Your task to perform on an android device: snooze an email in the gmail app Image 0: 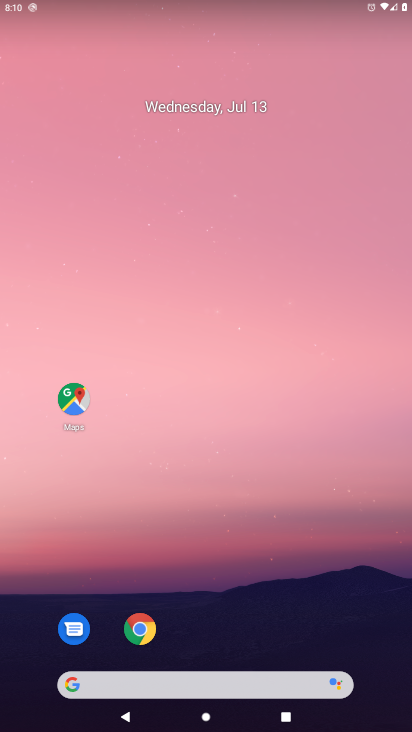
Step 0: drag from (75, 670) to (148, 342)
Your task to perform on an android device: snooze an email in the gmail app Image 1: 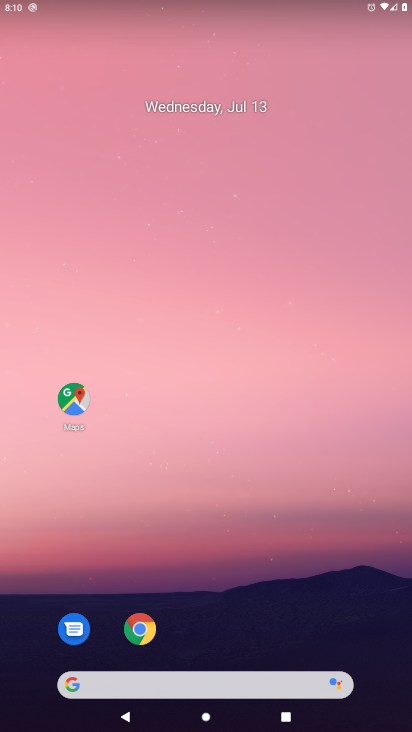
Step 1: drag from (35, 691) to (271, 15)
Your task to perform on an android device: snooze an email in the gmail app Image 2: 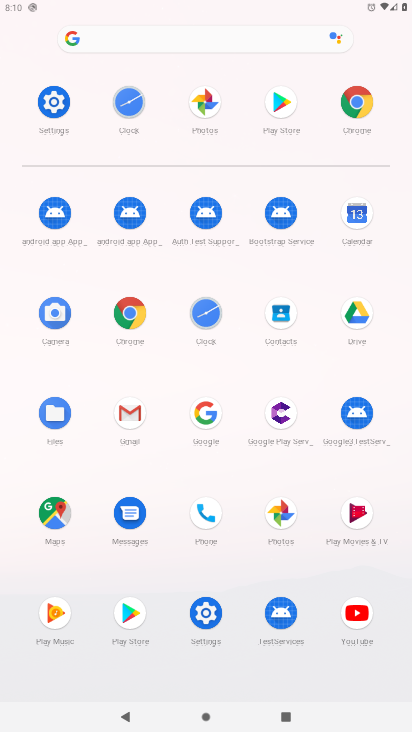
Step 2: click (130, 413)
Your task to perform on an android device: snooze an email in the gmail app Image 3: 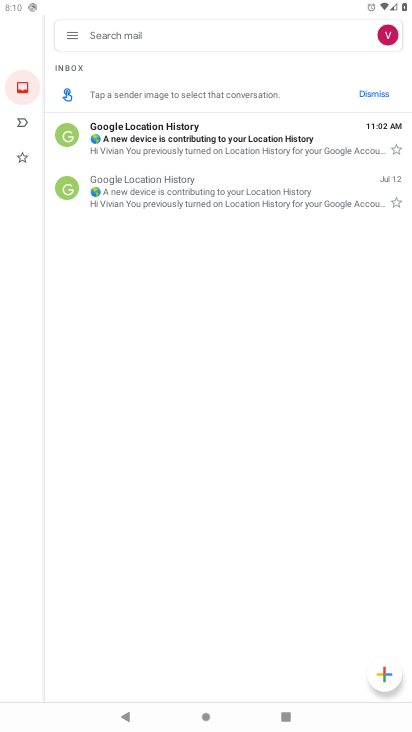
Step 3: click (69, 38)
Your task to perform on an android device: snooze an email in the gmail app Image 4: 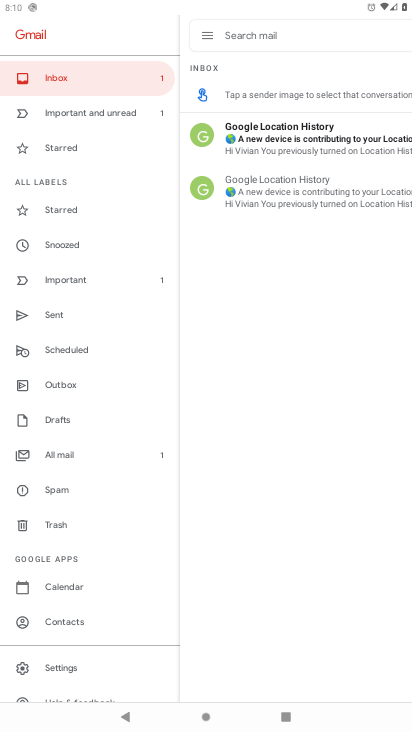
Step 4: click (52, 243)
Your task to perform on an android device: snooze an email in the gmail app Image 5: 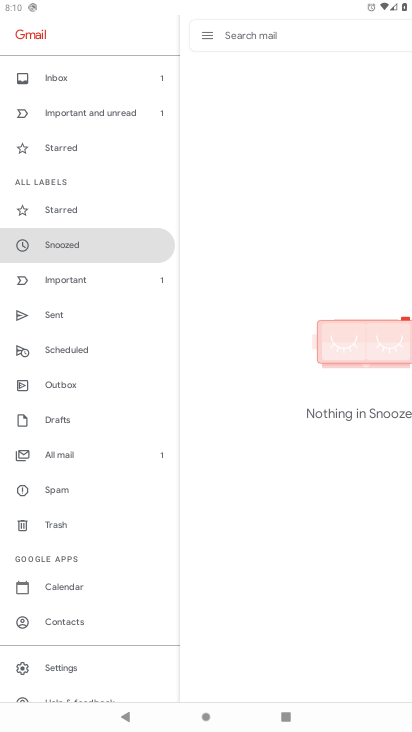
Step 5: task complete